Your task to perform on an android device: set the timer Image 0: 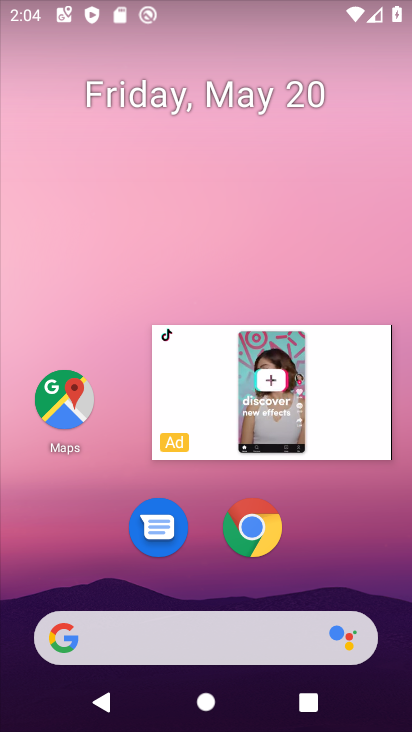
Step 0: click (314, 368)
Your task to perform on an android device: set the timer Image 1: 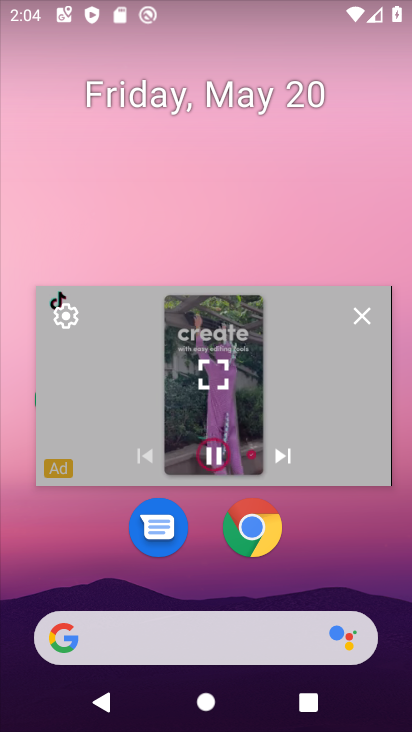
Step 1: click (365, 316)
Your task to perform on an android device: set the timer Image 2: 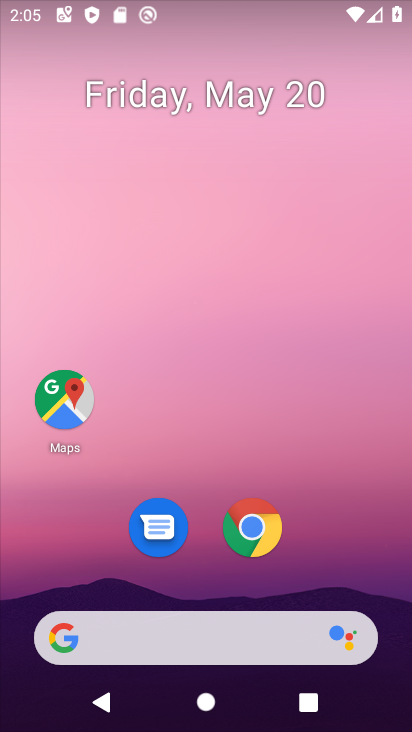
Step 2: drag from (155, 702) to (245, 163)
Your task to perform on an android device: set the timer Image 3: 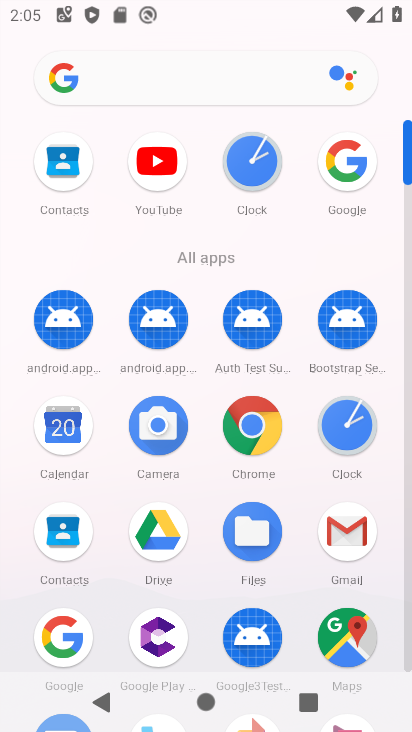
Step 3: click (340, 426)
Your task to perform on an android device: set the timer Image 4: 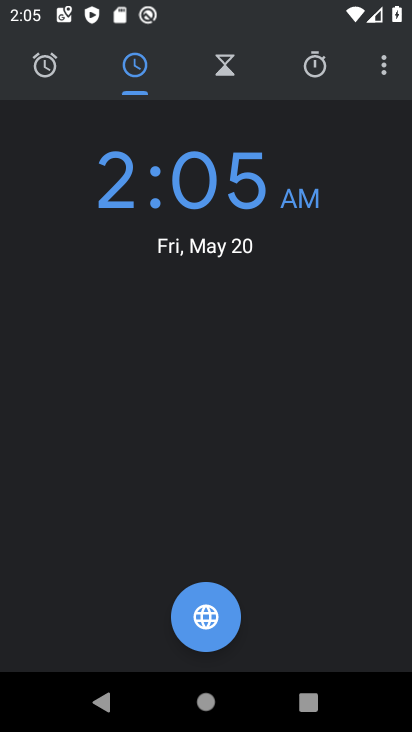
Step 4: click (312, 62)
Your task to perform on an android device: set the timer Image 5: 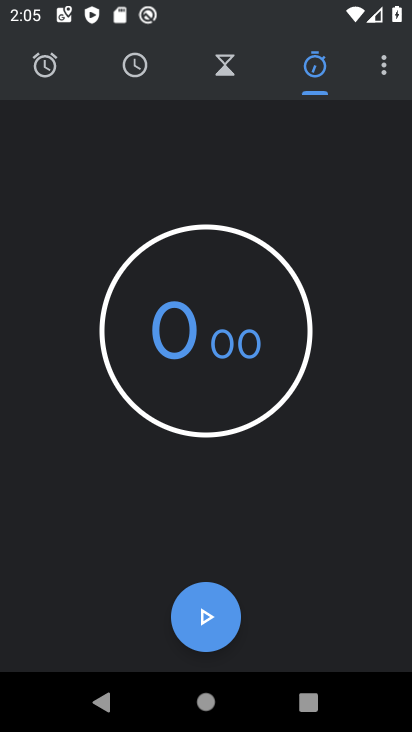
Step 5: click (216, 76)
Your task to perform on an android device: set the timer Image 6: 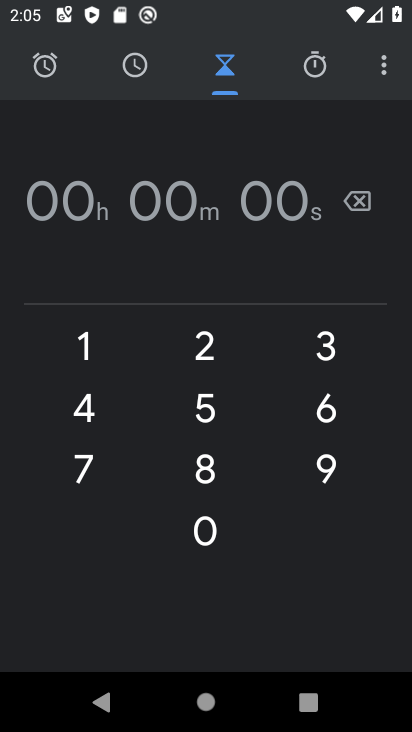
Step 6: click (227, 354)
Your task to perform on an android device: set the timer Image 7: 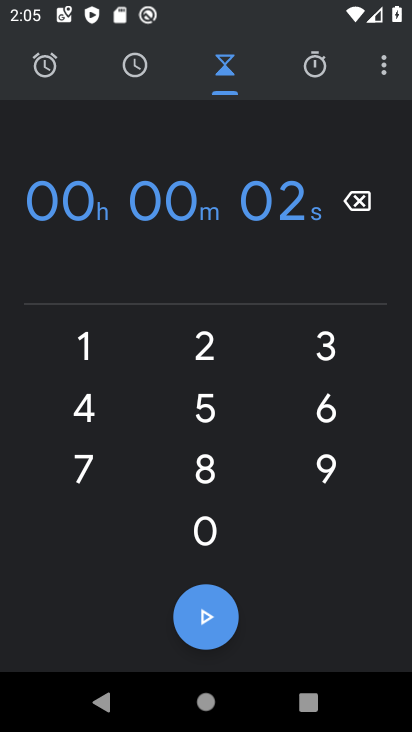
Step 7: click (333, 351)
Your task to perform on an android device: set the timer Image 8: 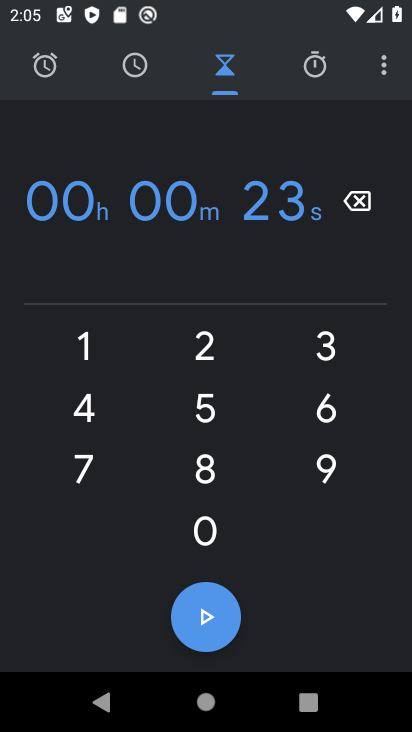
Step 8: click (356, 424)
Your task to perform on an android device: set the timer Image 9: 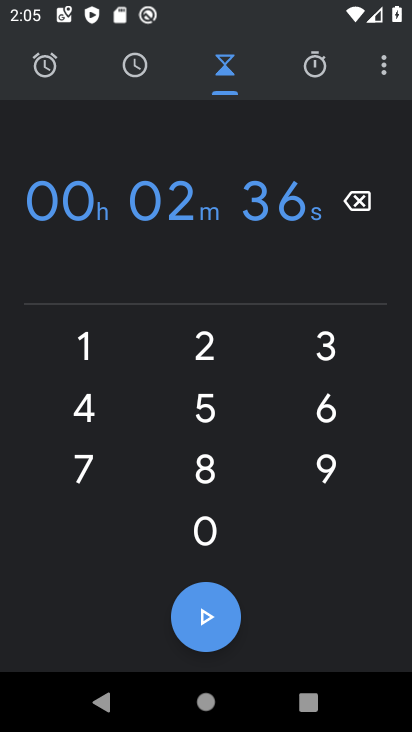
Step 9: task complete